Your task to perform on an android device: Play the last video I watched on Youtube Image 0: 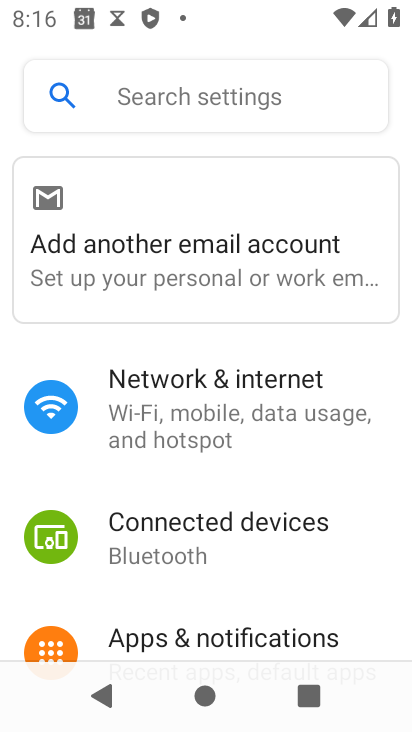
Step 0: press home button
Your task to perform on an android device: Play the last video I watched on Youtube Image 1: 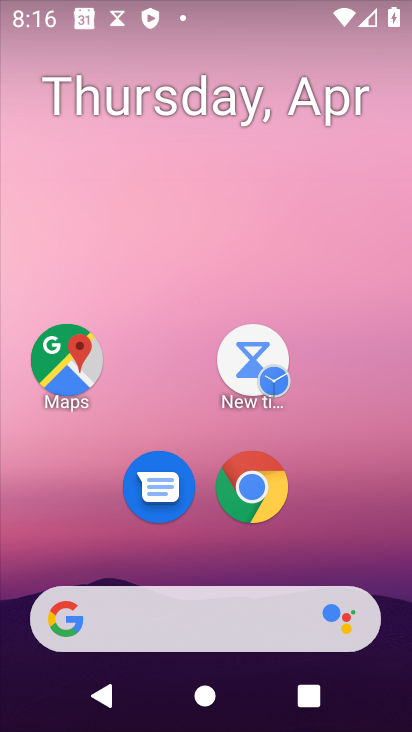
Step 1: drag from (355, 546) to (332, 86)
Your task to perform on an android device: Play the last video I watched on Youtube Image 2: 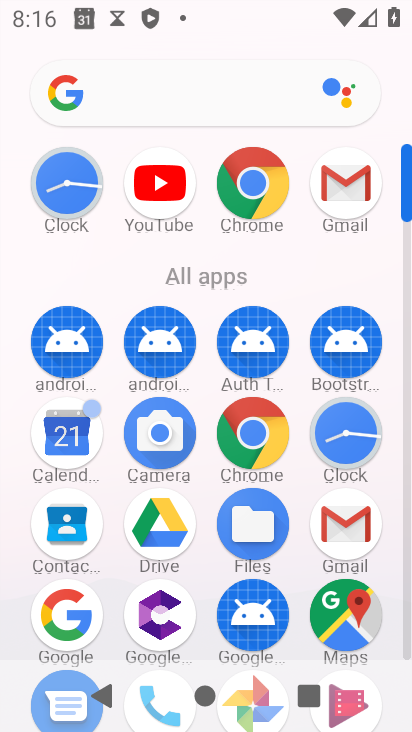
Step 2: click (165, 187)
Your task to perform on an android device: Play the last video I watched on Youtube Image 3: 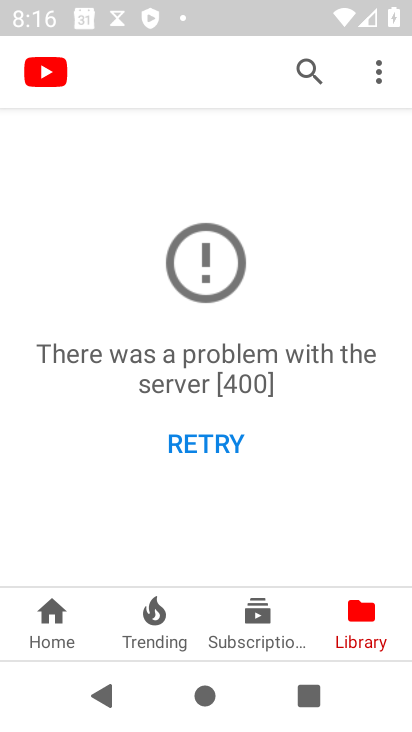
Step 3: click (210, 438)
Your task to perform on an android device: Play the last video I watched on Youtube Image 4: 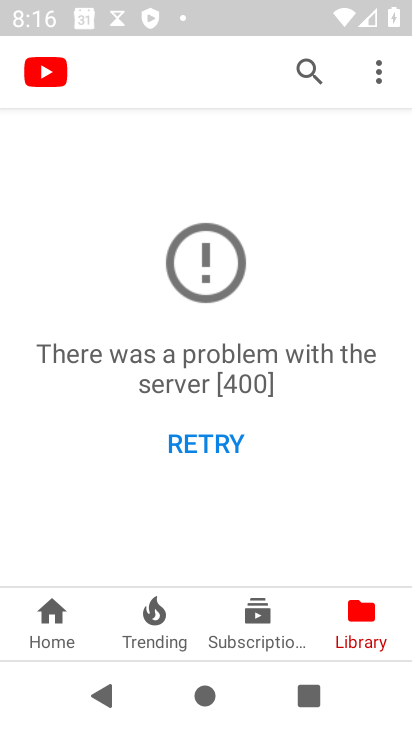
Step 4: task complete